Your task to perform on an android device: refresh tabs in the chrome app Image 0: 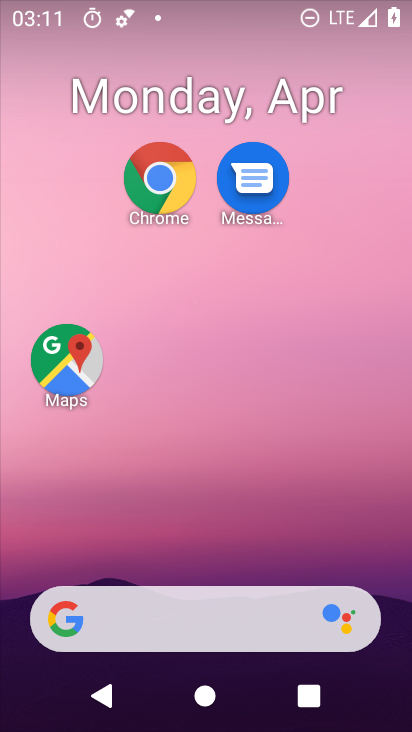
Step 0: drag from (309, 551) to (249, 2)
Your task to perform on an android device: refresh tabs in the chrome app Image 1: 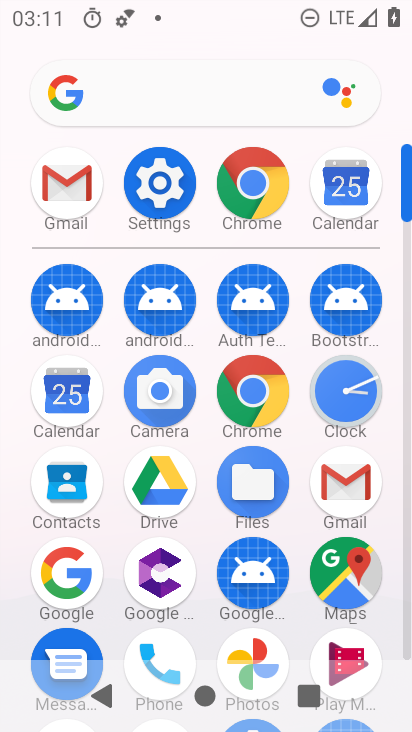
Step 1: click (267, 373)
Your task to perform on an android device: refresh tabs in the chrome app Image 2: 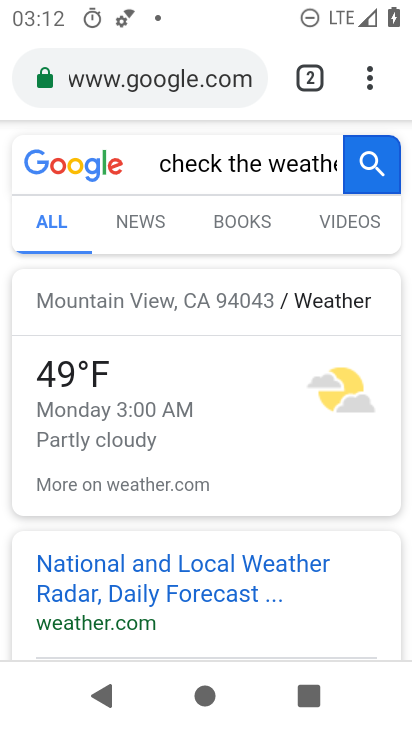
Step 2: click (364, 77)
Your task to perform on an android device: refresh tabs in the chrome app Image 3: 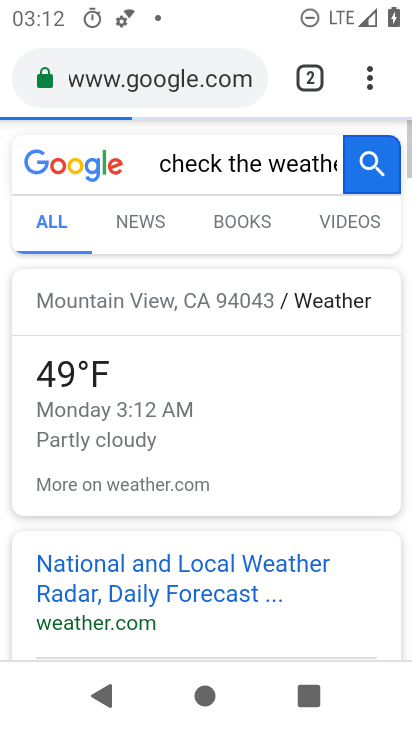
Step 3: click (362, 94)
Your task to perform on an android device: refresh tabs in the chrome app Image 4: 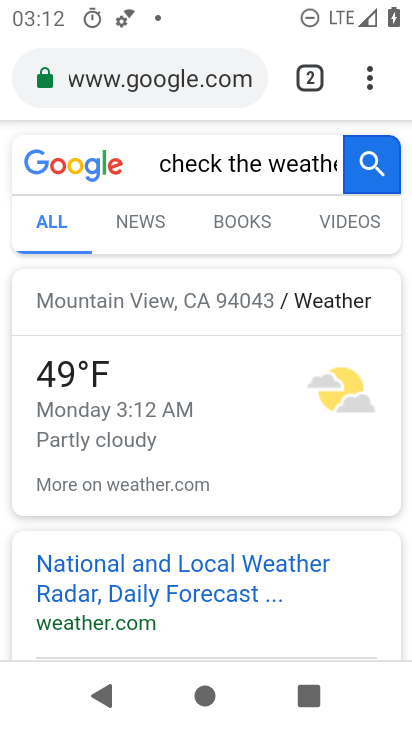
Step 4: task complete